Your task to perform on an android device: Search for Mexican restaurants on Maps Image 0: 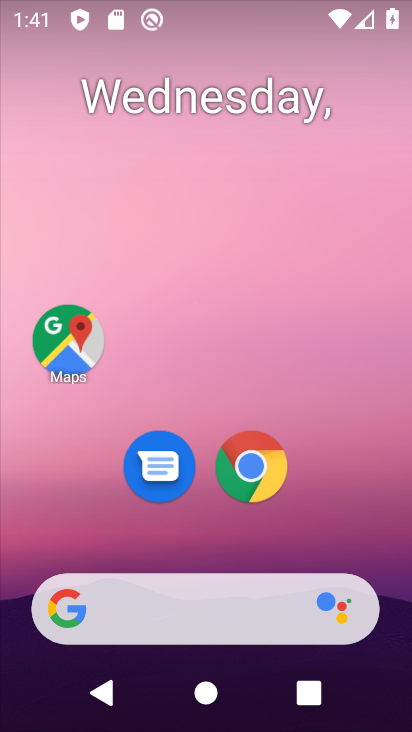
Step 0: drag from (342, 522) to (305, 9)
Your task to perform on an android device: Search for Mexican restaurants on Maps Image 1: 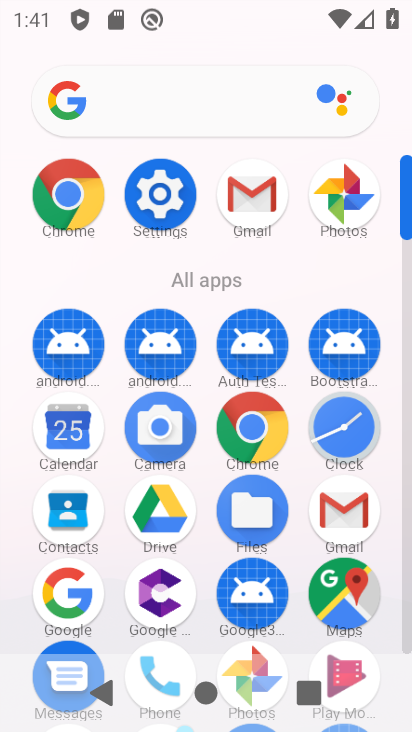
Step 1: drag from (12, 584) to (33, 189)
Your task to perform on an android device: Search for Mexican restaurants on Maps Image 2: 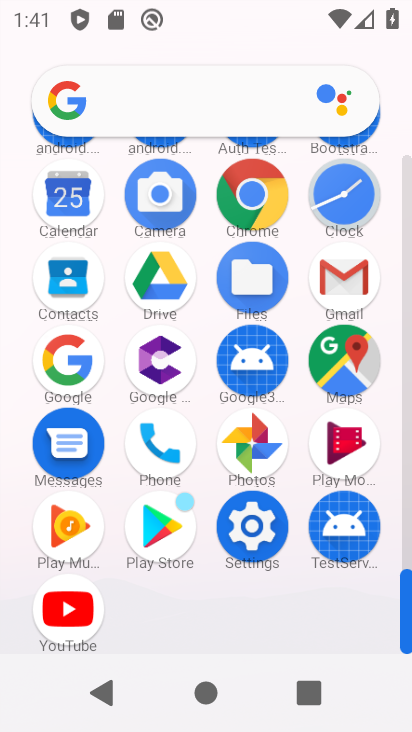
Step 2: click (340, 355)
Your task to perform on an android device: Search for Mexican restaurants on Maps Image 3: 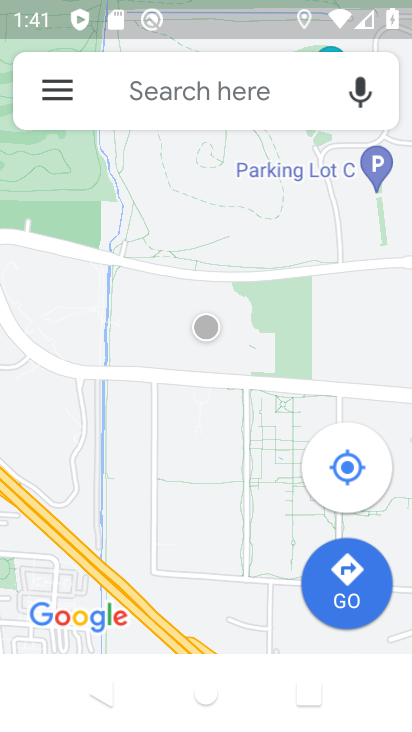
Step 3: click (141, 92)
Your task to perform on an android device: Search for Mexican restaurants on Maps Image 4: 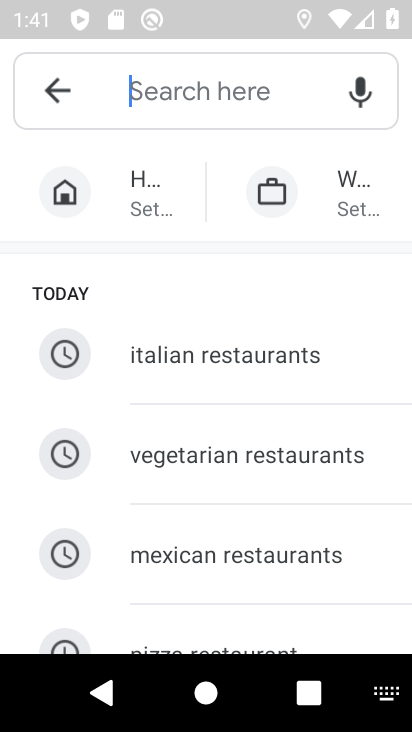
Step 4: type "Mexican restaurants"
Your task to perform on an android device: Search for Mexican restaurants on Maps Image 5: 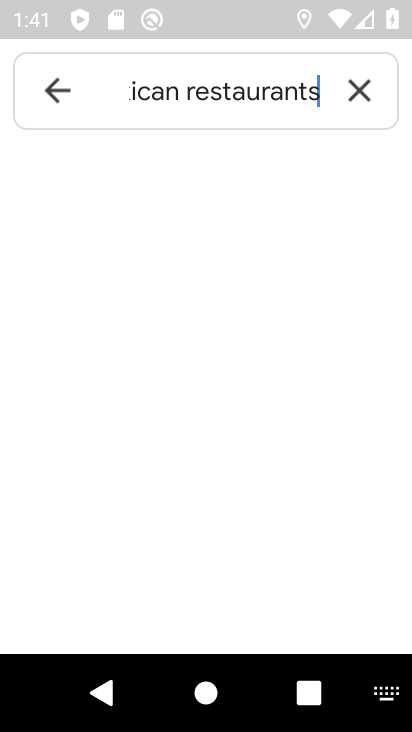
Step 5: type ""
Your task to perform on an android device: Search for Mexican restaurants on Maps Image 6: 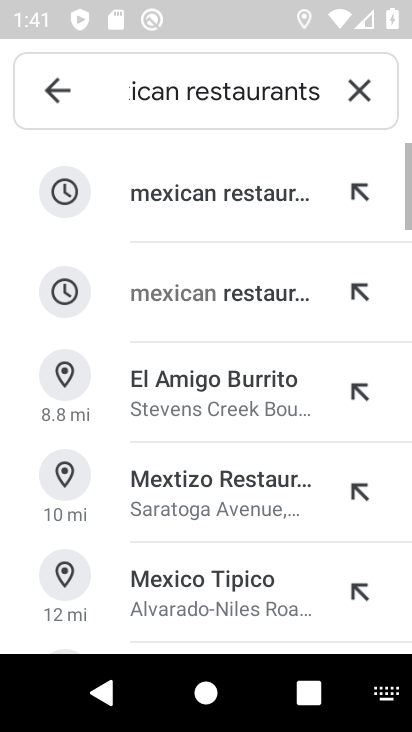
Step 6: click (197, 203)
Your task to perform on an android device: Search for Mexican restaurants on Maps Image 7: 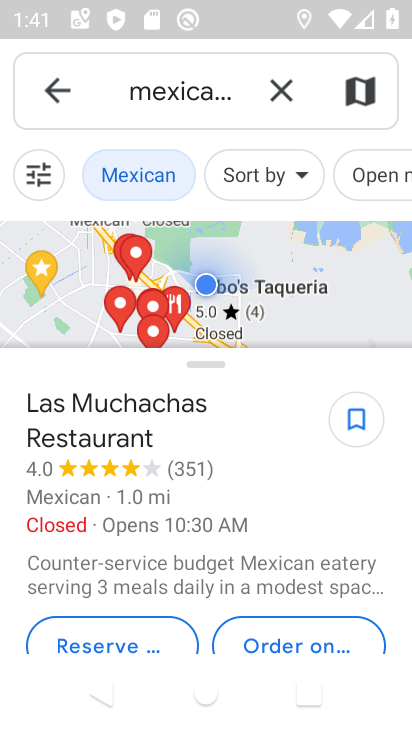
Step 7: task complete